Your task to perform on an android device: Open Wikipedia Image 0: 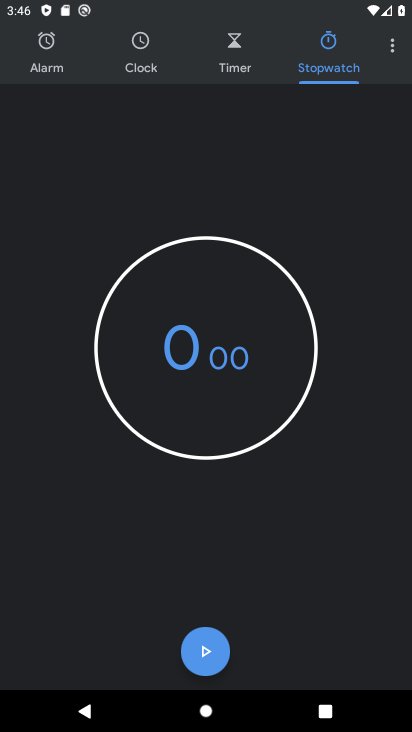
Step 0: press home button
Your task to perform on an android device: Open Wikipedia Image 1: 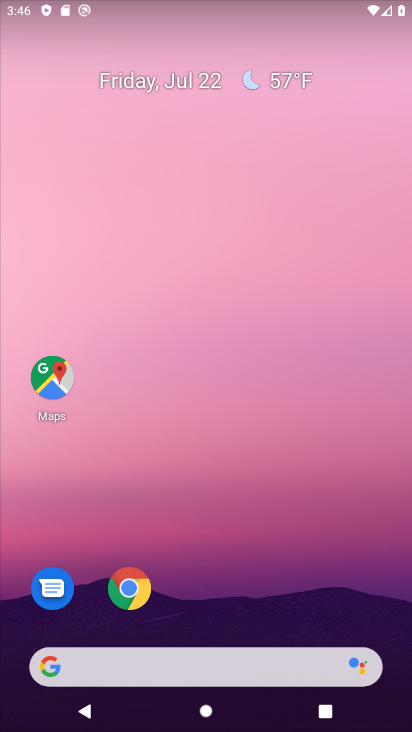
Step 1: drag from (203, 620) to (140, 3)
Your task to perform on an android device: Open Wikipedia Image 2: 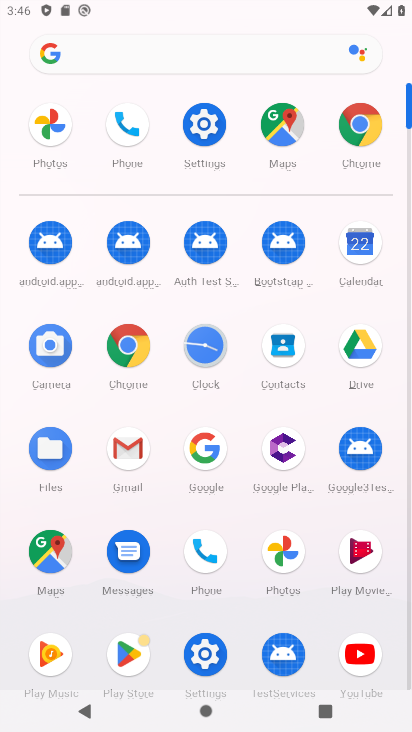
Step 2: click (116, 349)
Your task to perform on an android device: Open Wikipedia Image 3: 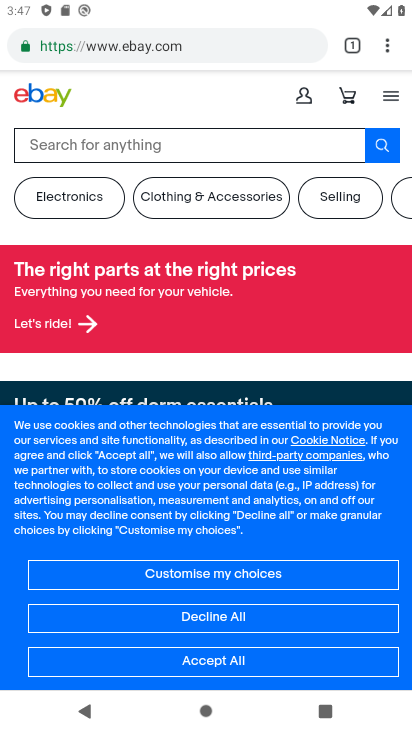
Step 3: click (354, 38)
Your task to perform on an android device: Open Wikipedia Image 4: 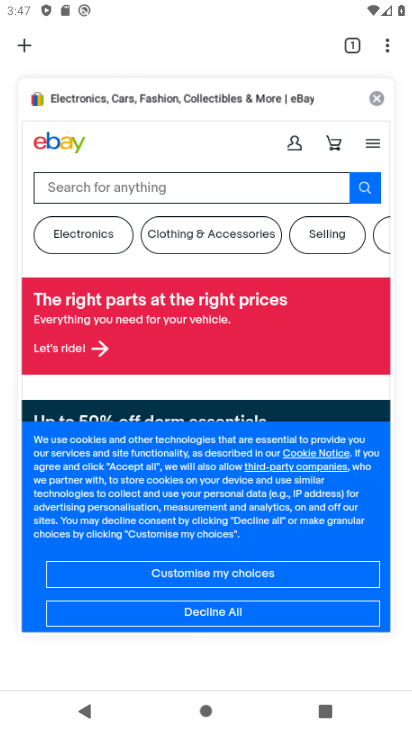
Step 4: click (16, 39)
Your task to perform on an android device: Open Wikipedia Image 5: 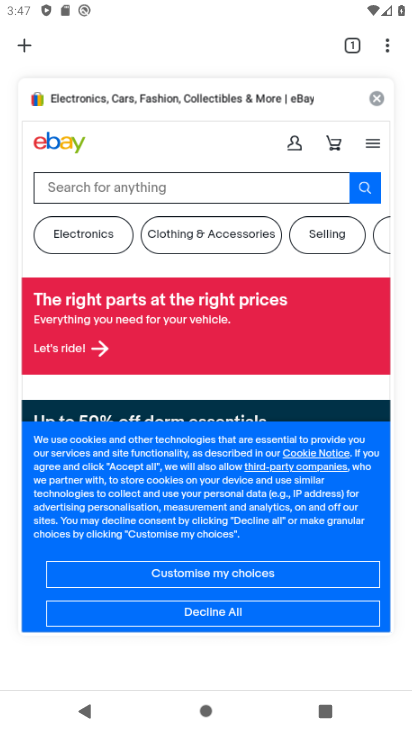
Step 5: click (34, 46)
Your task to perform on an android device: Open Wikipedia Image 6: 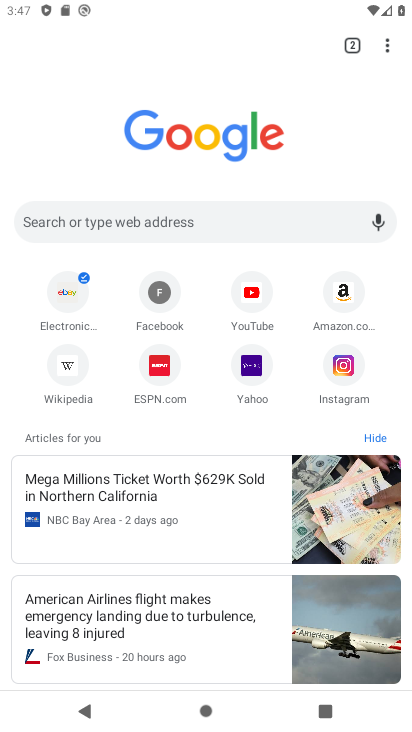
Step 6: click (76, 363)
Your task to perform on an android device: Open Wikipedia Image 7: 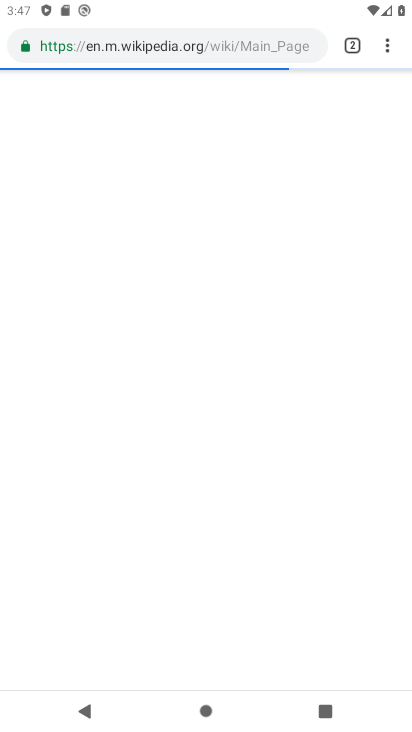
Step 7: task complete